Your task to perform on an android device: clear history in the chrome app Image 0: 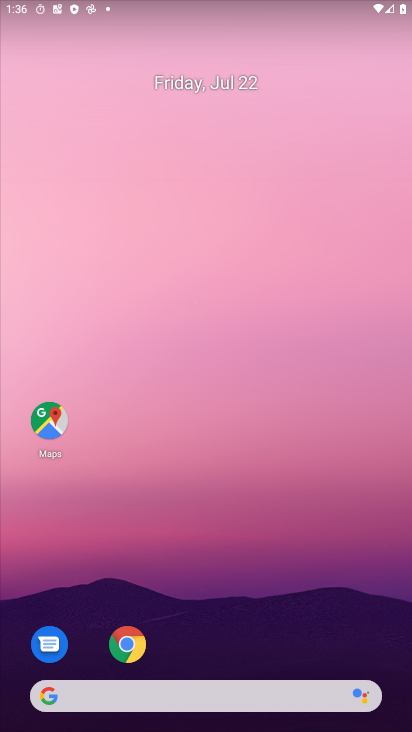
Step 0: drag from (280, 656) to (225, 155)
Your task to perform on an android device: clear history in the chrome app Image 1: 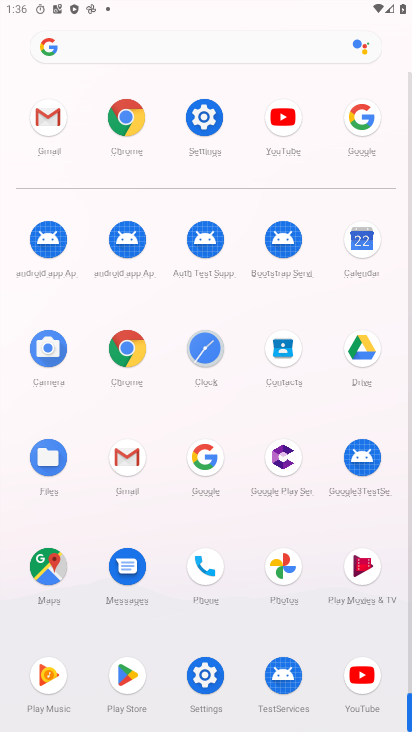
Step 1: click (138, 360)
Your task to perform on an android device: clear history in the chrome app Image 2: 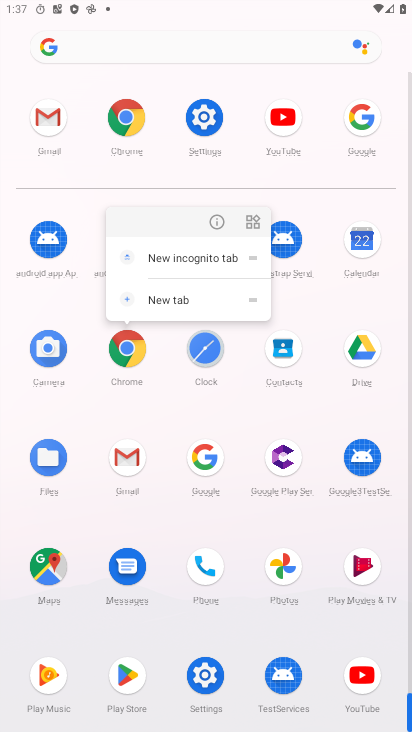
Step 2: click (128, 359)
Your task to perform on an android device: clear history in the chrome app Image 3: 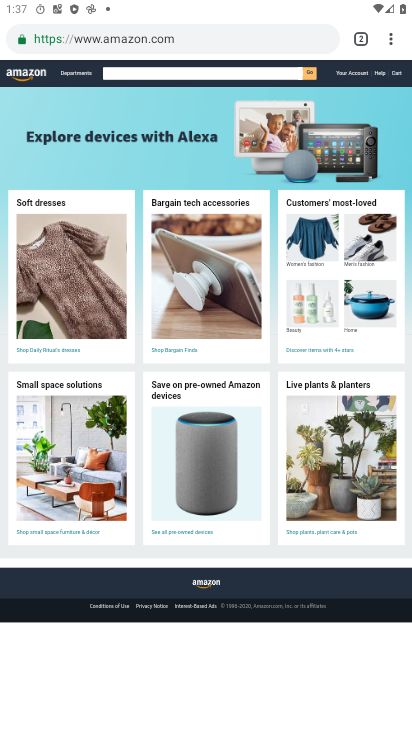
Step 3: click (394, 40)
Your task to perform on an android device: clear history in the chrome app Image 4: 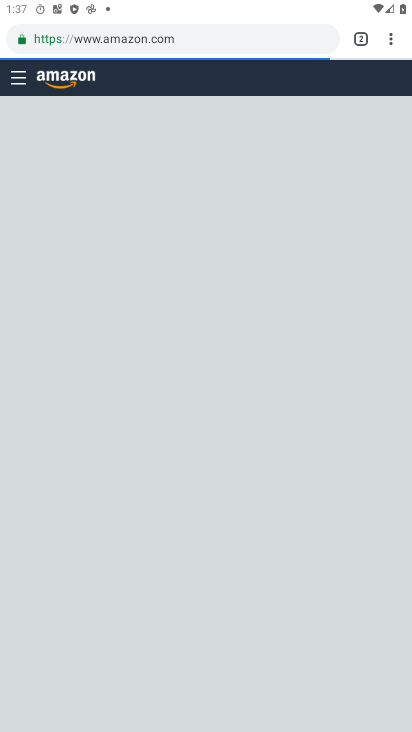
Step 4: click (394, 40)
Your task to perform on an android device: clear history in the chrome app Image 5: 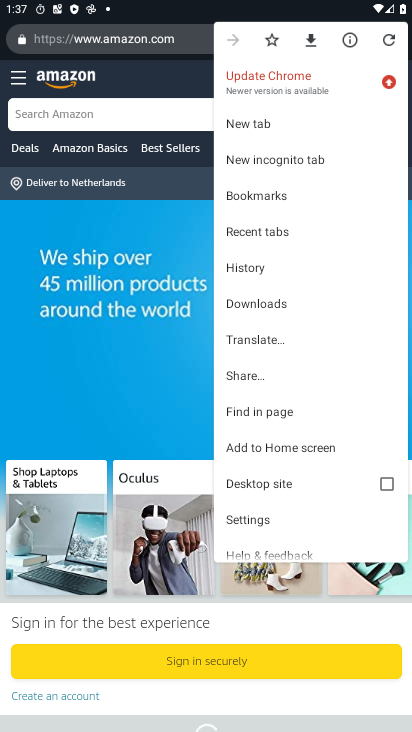
Step 5: click (252, 268)
Your task to perform on an android device: clear history in the chrome app Image 6: 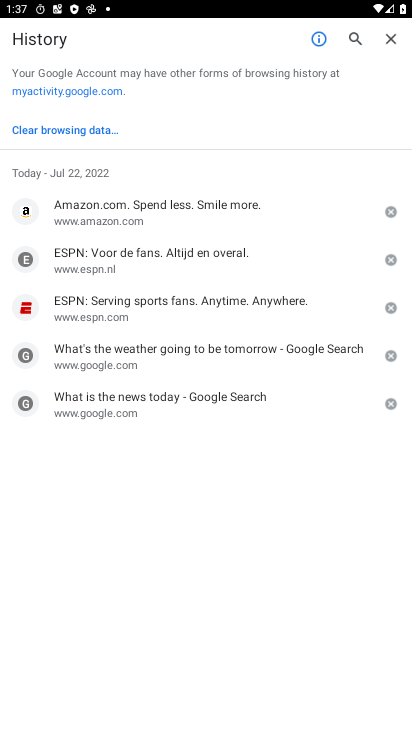
Step 6: click (80, 125)
Your task to perform on an android device: clear history in the chrome app Image 7: 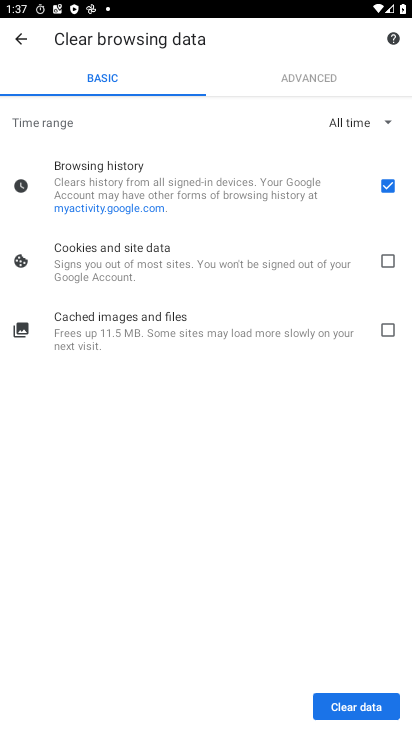
Step 7: click (363, 709)
Your task to perform on an android device: clear history in the chrome app Image 8: 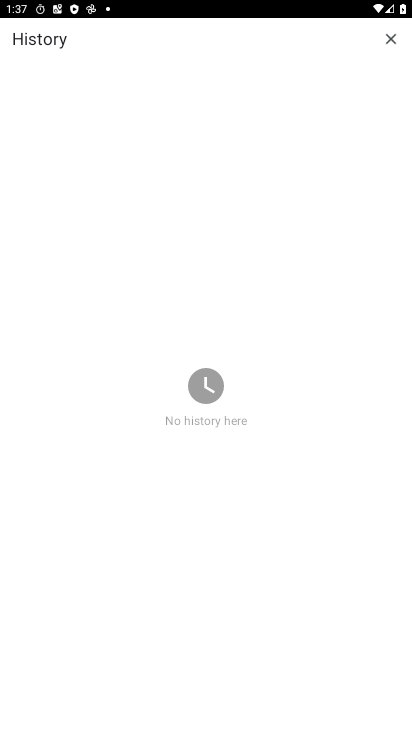
Step 8: task complete